Your task to perform on an android device: Go to sound settings Image 0: 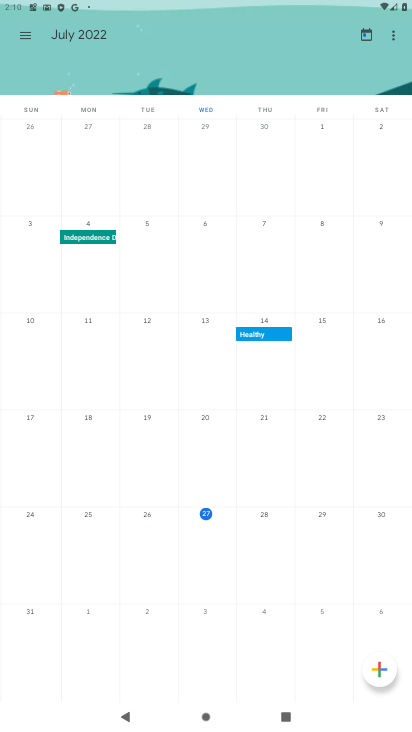
Step 0: task complete